Your task to perform on an android device: find snoozed emails in the gmail app Image 0: 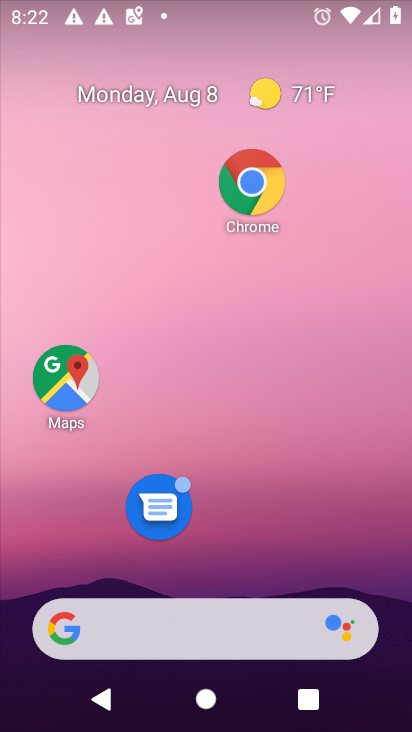
Step 0: drag from (228, 553) to (104, 69)
Your task to perform on an android device: find snoozed emails in the gmail app Image 1: 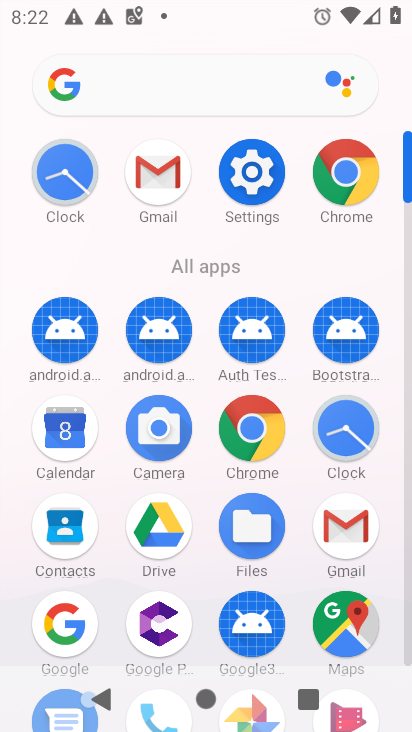
Step 1: click (374, 531)
Your task to perform on an android device: find snoozed emails in the gmail app Image 2: 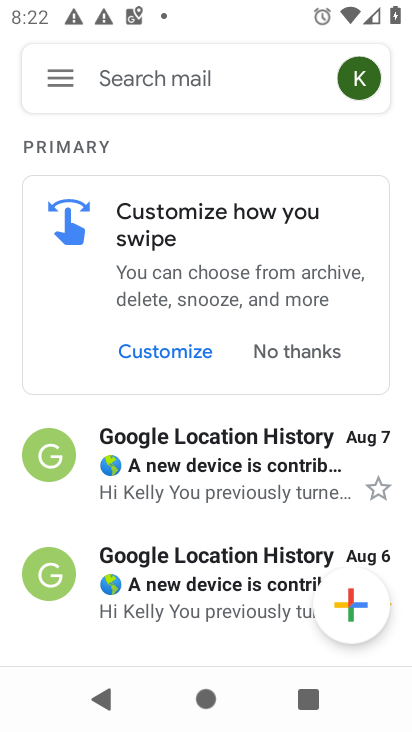
Step 2: click (66, 76)
Your task to perform on an android device: find snoozed emails in the gmail app Image 3: 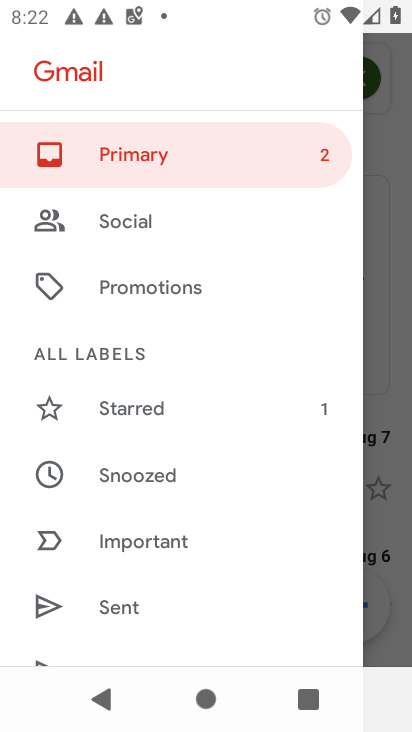
Step 3: click (161, 483)
Your task to perform on an android device: find snoozed emails in the gmail app Image 4: 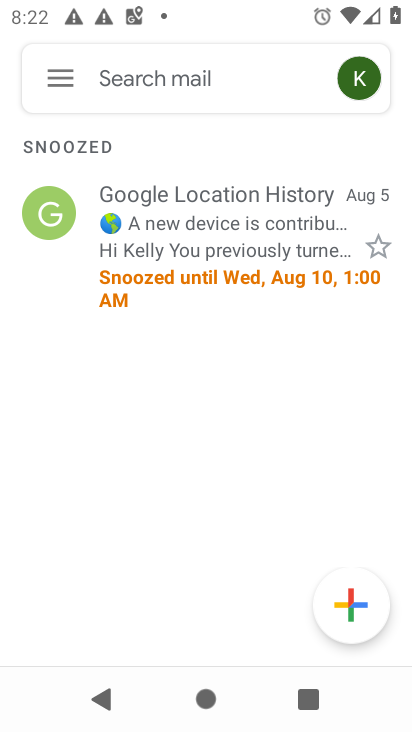
Step 4: drag from (193, 286) to (149, 602)
Your task to perform on an android device: find snoozed emails in the gmail app Image 5: 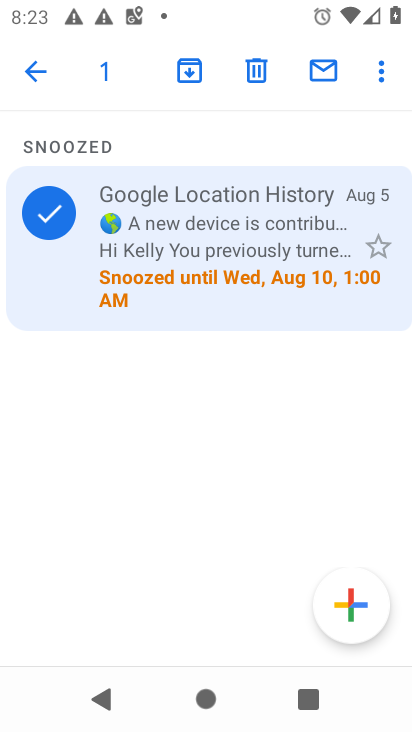
Step 5: click (283, 378)
Your task to perform on an android device: find snoozed emails in the gmail app Image 6: 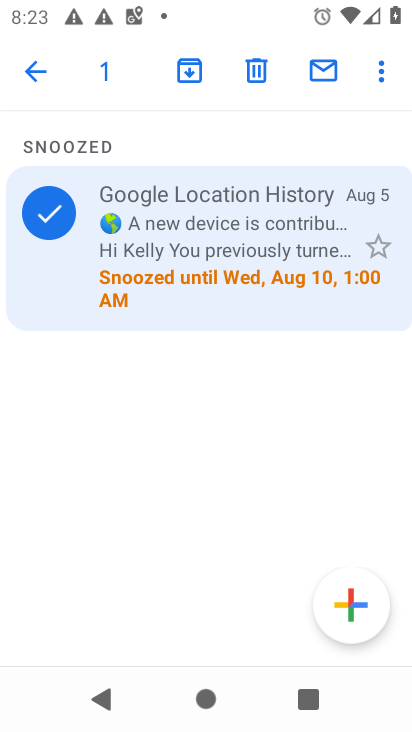
Step 6: click (50, 75)
Your task to perform on an android device: find snoozed emails in the gmail app Image 7: 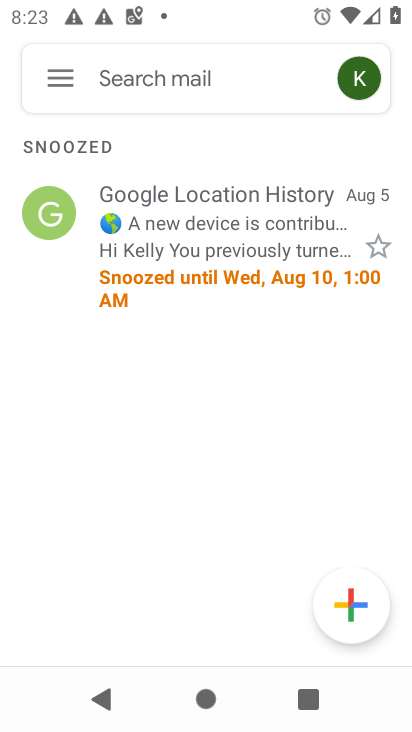
Step 7: task complete